Your task to perform on an android device: empty trash in the gmail app Image 0: 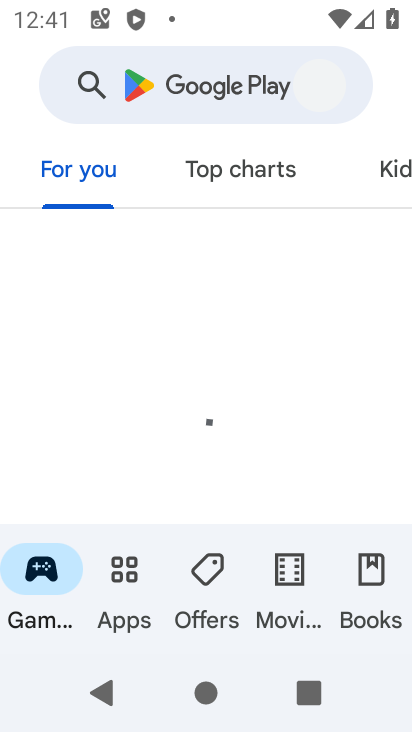
Step 0: press home button
Your task to perform on an android device: empty trash in the gmail app Image 1: 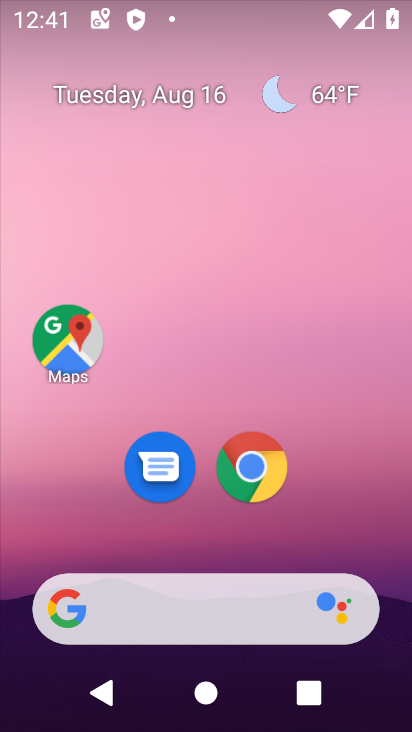
Step 1: drag from (389, 559) to (371, 13)
Your task to perform on an android device: empty trash in the gmail app Image 2: 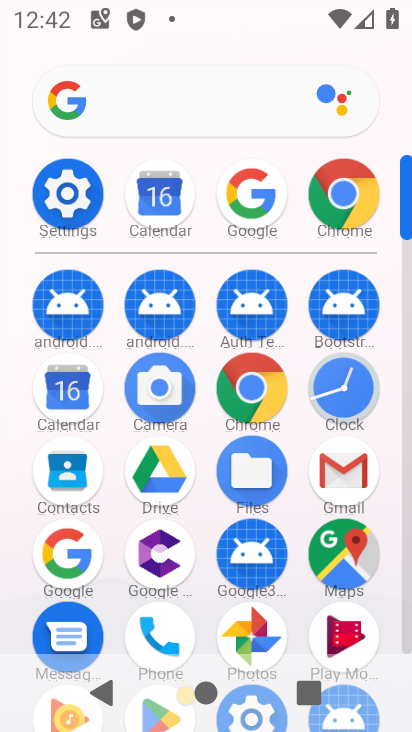
Step 2: click (341, 470)
Your task to perform on an android device: empty trash in the gmail app Image 3: 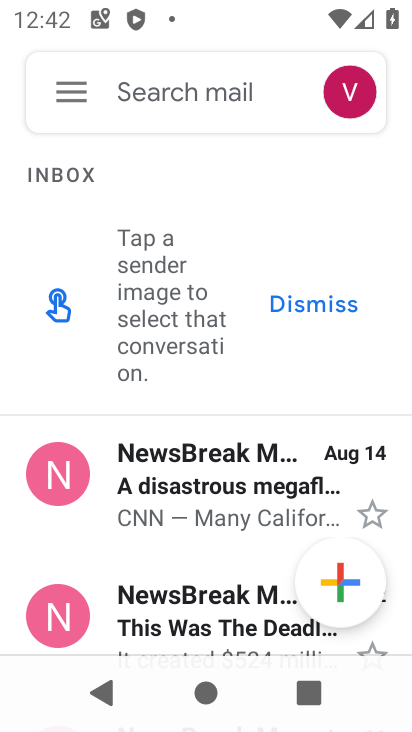
Step 3: click (74, 99)
Your task to perform on an android device: empty trash in the gmail app Image 4: 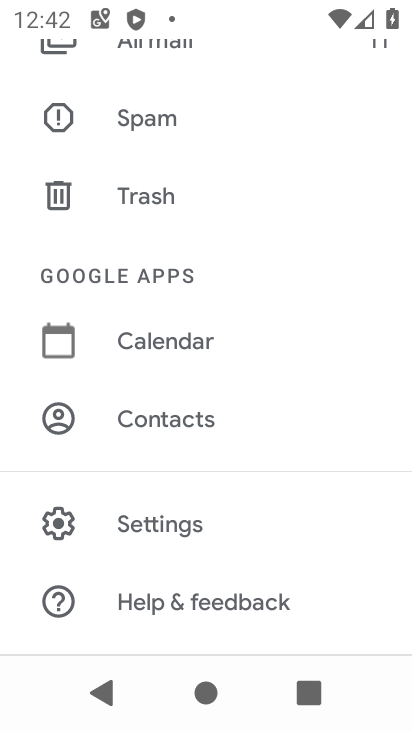
Step 4: drag from (315, 255) to (314, 331)
Your task to perform on an android device: empty trash in the gmail app Image 5: 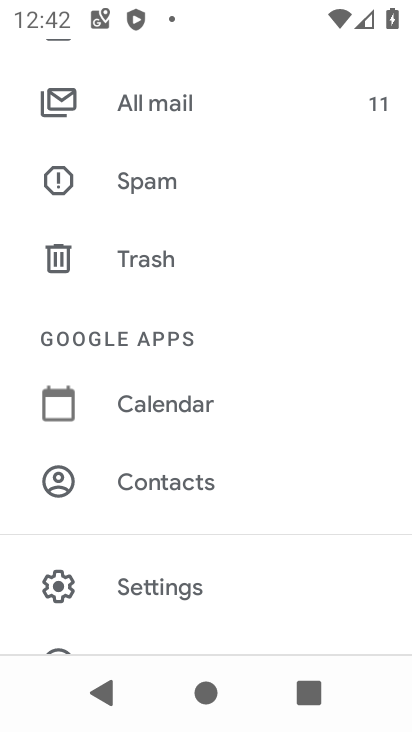
Step 5: drag from (309, 143) to (313, 270)
Your task to perform on an android device: empty trash in the gmail app Image 6: 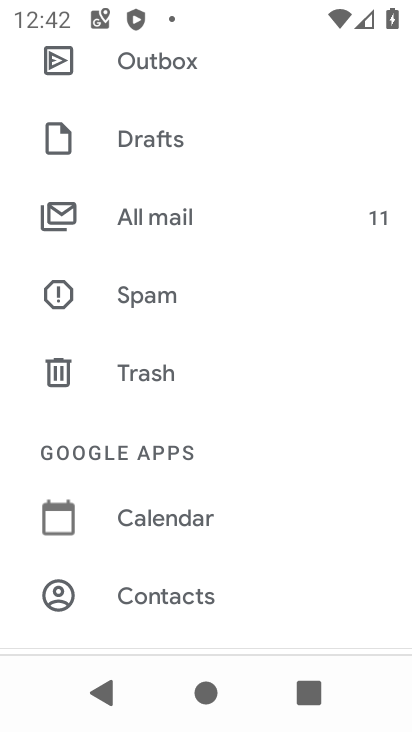
Step 6: drag from (302, 137) to (313, 298)
Your task to perform on an android device: empty trash in the gmail app Image 7: 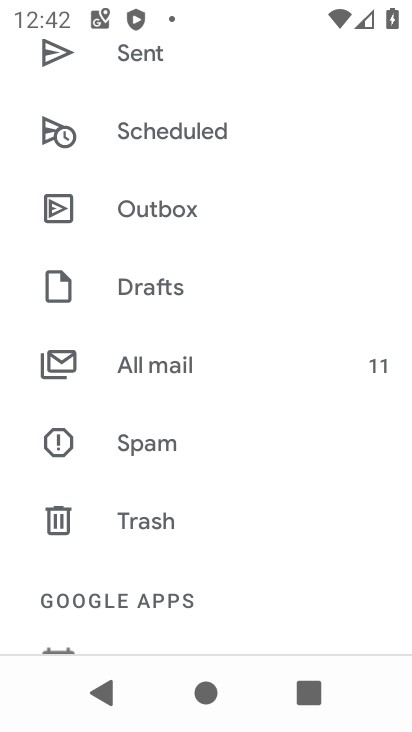
Step 7: click (155, 532)
Your task to perform on an android device: empty trash in the gmail app Image 8: 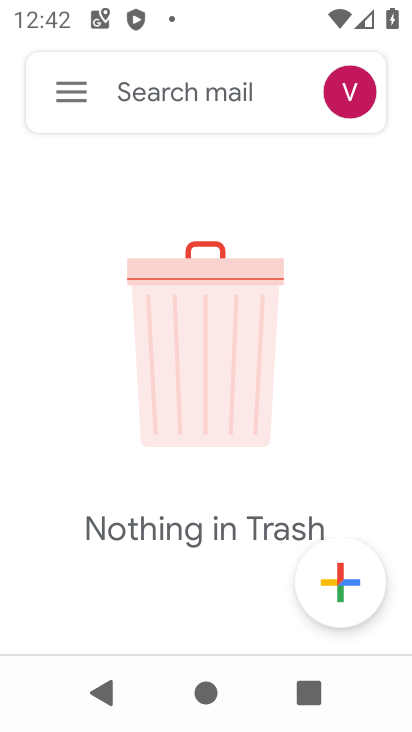
Step 8: task complete